Your task to perform on an android device: turn off priority inbox in the gmail app Image 0: 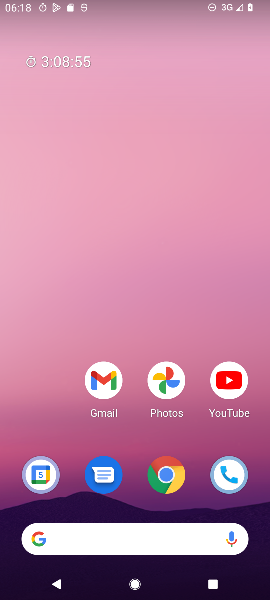
Step 0: press home button
Your task to perform on an android device: turn off priority inbox in the gmail app Image 1: 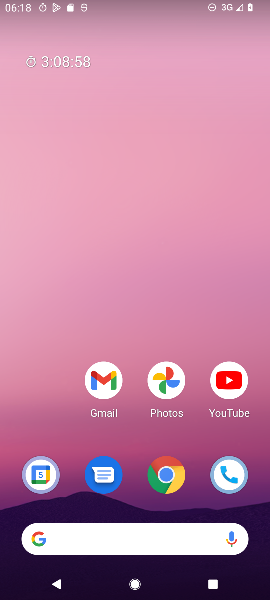
Step 1: drag from (57, 430) to (64, 218)
Your task to perform on an android device: turn off priority inbox in the gmail app Image 2: 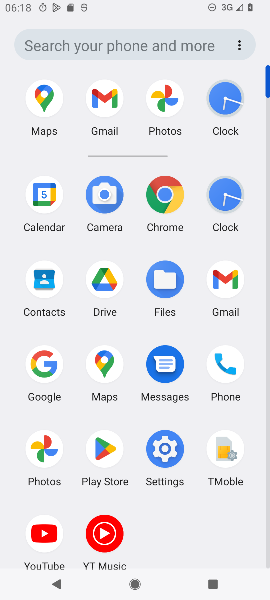
Step 2: click (222, 278)
Your task to perform on an android device: turn off priority inbox in the gmail app Image 3: 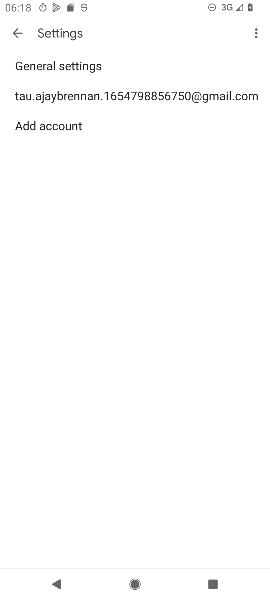
Step 3: click (189, 95)
Your task to perform on an android device: turn off priority inbox in the gmail app Image 4: 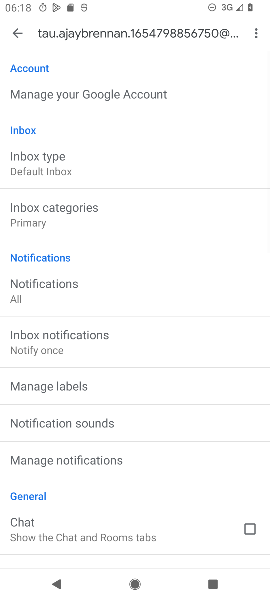
Step 4: drag from (214, 337) to (217, 261)
Your task to perform on an android device: turn off priority inbox in the gmail app Image 5: 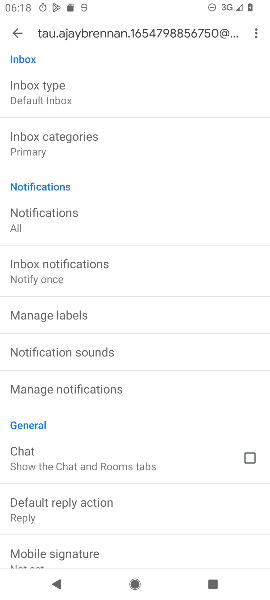
Step 5: drag from (200, 380) to (204, 275)
Your task to perform on an android device: turn off priority inbox in the gmail app Image 6: 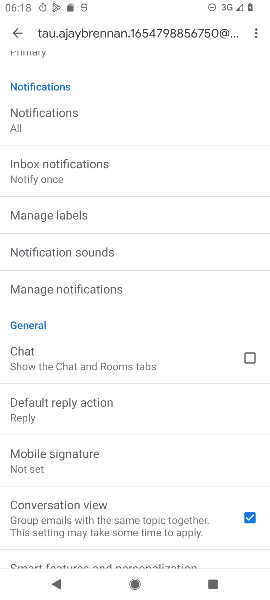
Step 6: drag from (184, 383) to (182, 271)
Your task to perform on an android device: turn off priority inbox in the gmail app Image 7: 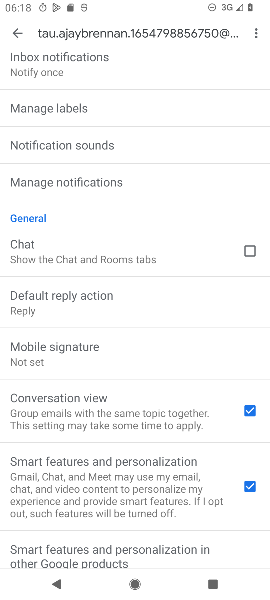
Step 7: drag from (166, 385) to (182, 282)
Your task to perform on an android device: turn off priority inbox in the gmail app Image 8: 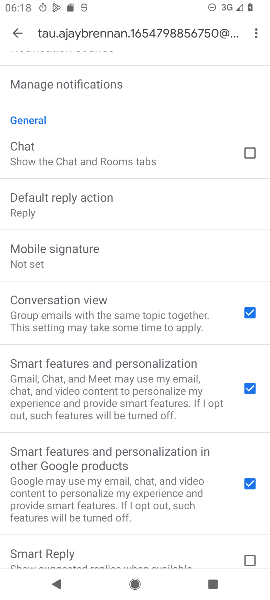
Step 8: drag from (149, 434) to (160, 328)
Your task to perform on an android device: turn off priority inbox in the gmail app Image 9: 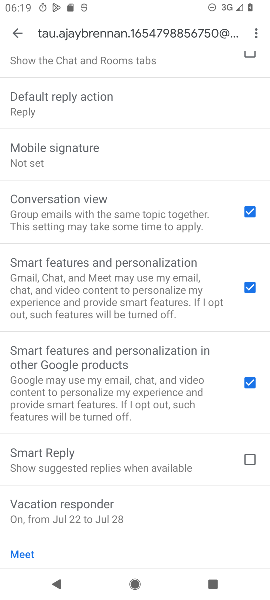
Step 9: drag from (191, 493) to (198, 363)
Your task to perform on an android device: turn off priority inbox in the gmail app Image 10: 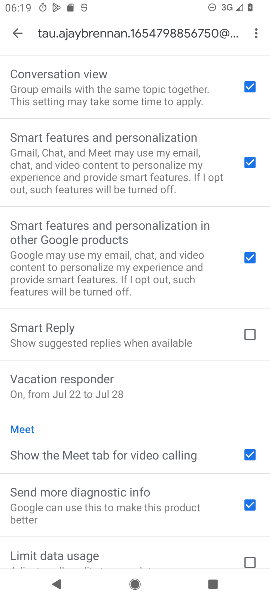
Step 10: drag from (158, 411) to (161, 272)
Your task to perform on an android device: turn off priority inbox in the gmail app Image 11: 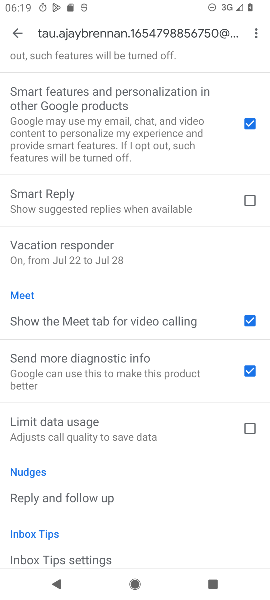
Step 11: drag from (168, 441) to (170, 318)
Your task to perform on an android device: turn off priority inbox in the gmail app Image 12: 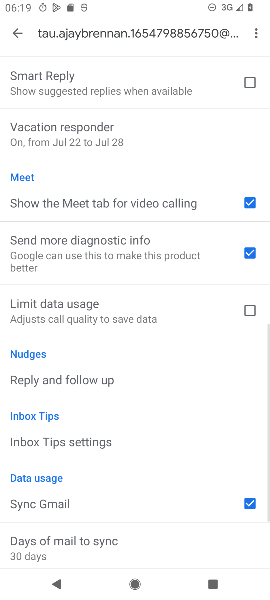
Step 12: drag from (167, 482) to (185, 332)
Your task to perform on an android device: turn off priority inbox in the gmail app Image 13: 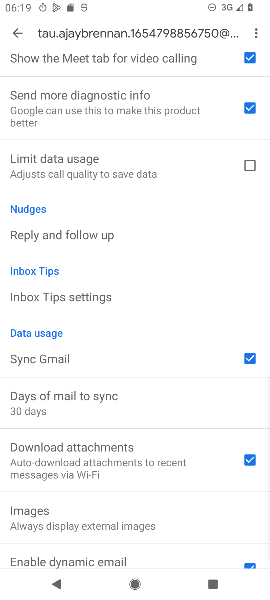
Step 13: drag from (190, 472) to (194, 352)
Your task to perform on an android device: turn off priority inbox in the gmail app Image 14: 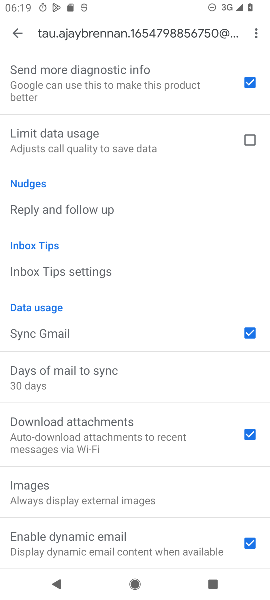
Step 14: drag from (208, 185) to (206, 254)
Your task to perform on an android device: turn off priority inbox in the gmail app Image 15: 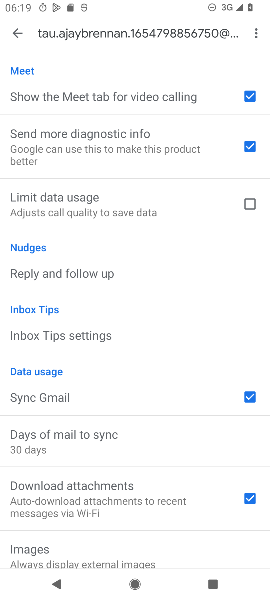
Step 15: drag from (189, 174) to (189, 272)
Your task to perform on an android device: turn off priority inbox in the gmail app Image 16: 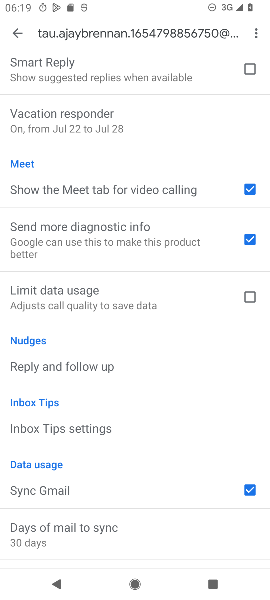
Step 16: drag from (206, 155) to (207, 249)
Your task to perform on an android device: turn off priority inbox in the gmail app Image 17: 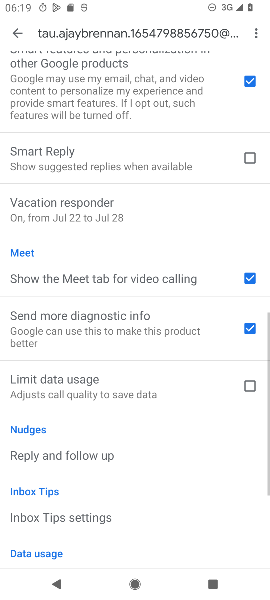
Step 17: drag from (209, 134) to (215, 238)
Your task to perform on an android device: turn off priority inbox in the gmail app Image 18: 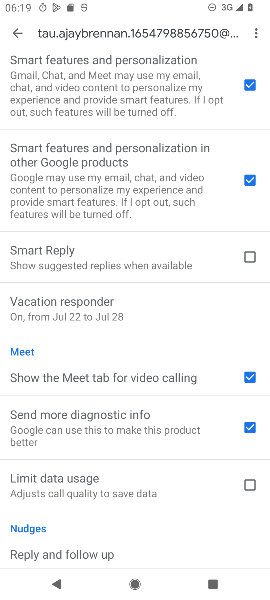
Step 18: drag from (214, 119) to (206, 216)
Your task to perform on an android device: turn off priority inbox in the gmail app Image 19: 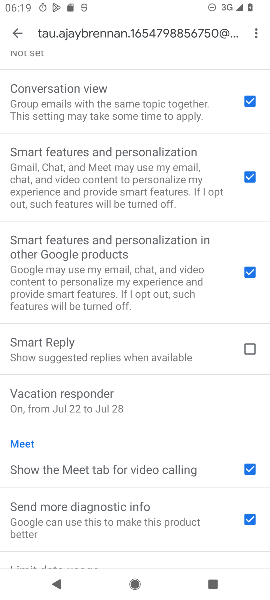
Step 19: drag from (206, 93) to (209, 219)
Your task to perform on an android device: turn off priority inbox in the gmail app Image 20: 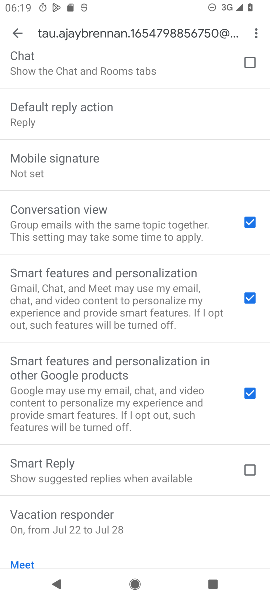
Step 20: drag from (207, 84) to (203, 195)
Your task to perform on an android device: turn off priority inbox in the gmail app Image 21: 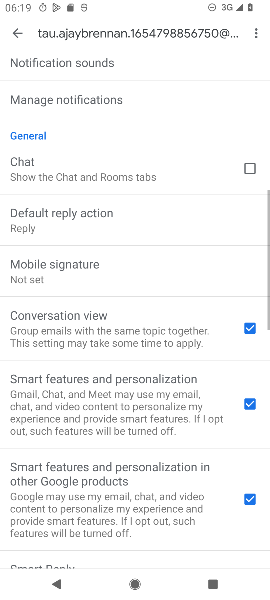
Step 21: drag from (190, 72) to (190, 239)
Your task to perform on an android device: turn off priority inbox in the gmail app Image 22: 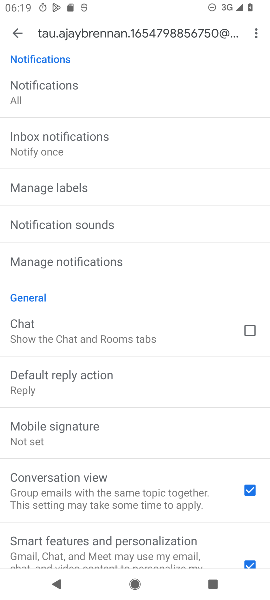
Step 22: drag from (168, 67) to (163, 227)
Your task to perform on an android device: turn off priority inbox in the gmail app Image 23: 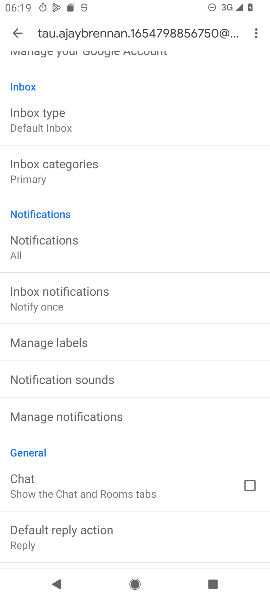
Step 23: drag from (141, 67) to (151, 227)
Your task to perform on an android device: turn off priority inbox in the gmail app Image 24: 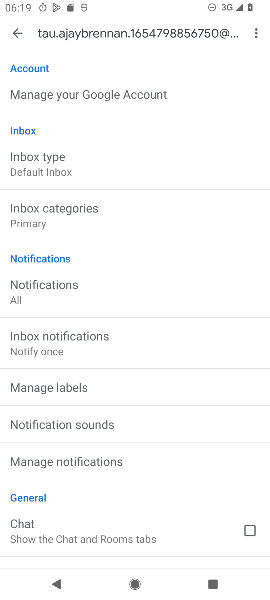
Step 24: click (51, 173)
Your task to perform on an android device: turn off priority inbox in the gmail app Image 25: 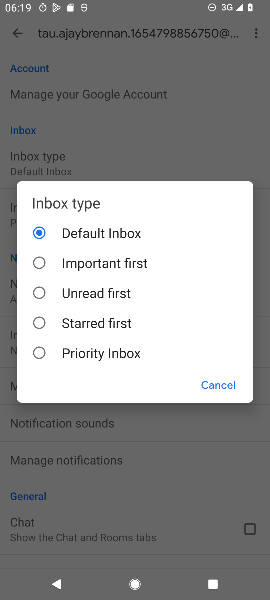
Step 25: task complete